Your task to perform on an android device: visit the assistant section in the google photos Image 0: 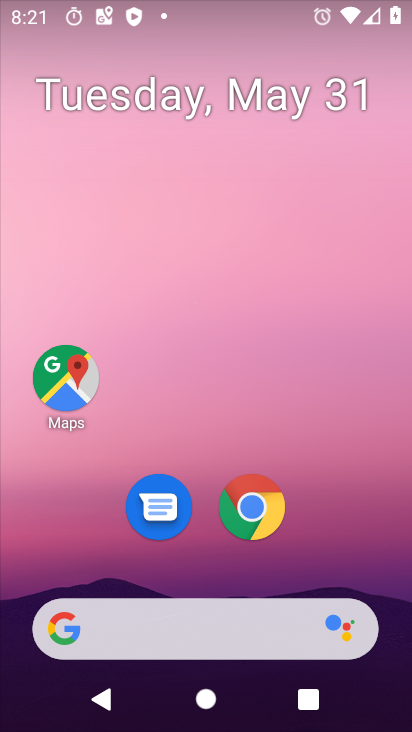
Step 0: drag from (375, 598) to (296, 21)
Your task to perform on an android device: visit the assistant section in the google photos Image 1: 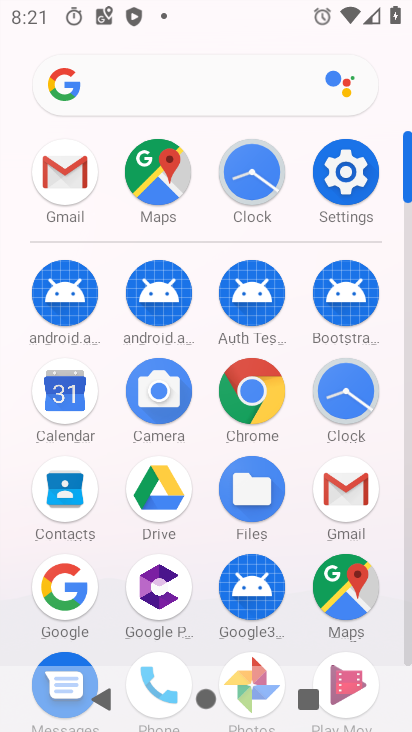
Step 1: click (407, 487)
Your task to perform on an android device: visit the assistant section in the google photos Image 2: 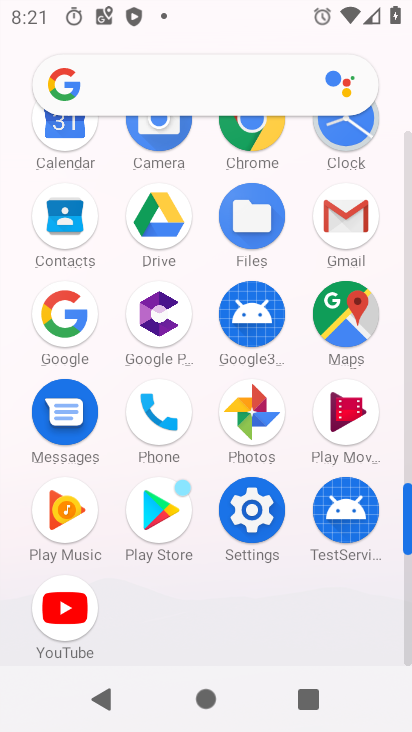
Step 2: click (251, 419)
Your task to perform on an android device: visit the assistant section in the google photos Image 3: 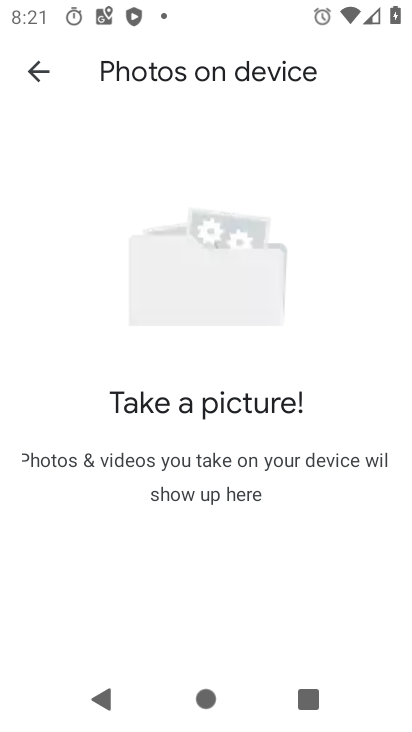
Step 3: click (42, 72)
Your task to perform on an android device: visit the assistant section in the google photos Image 4: 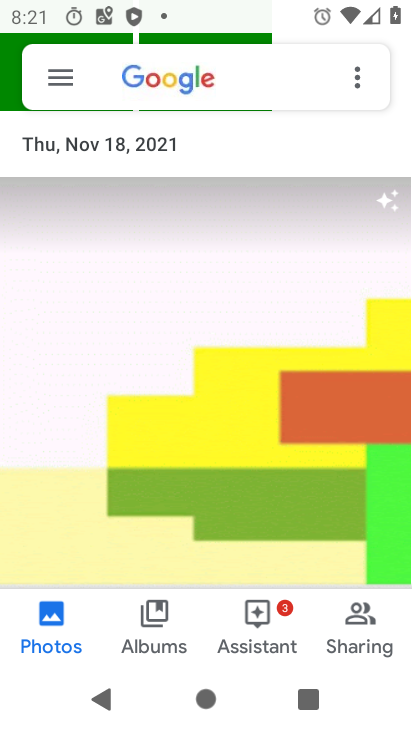
Step 4: click (263, 638)
Your task to perform on an android device: visit the assistant section in the google photos Image 5: 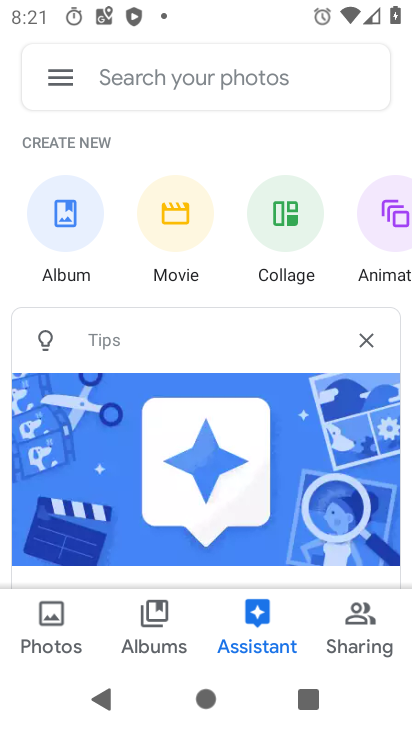
Step 5: task complete